Your task to perform on an android device: toggle show notifications on the lock screen Image 0: 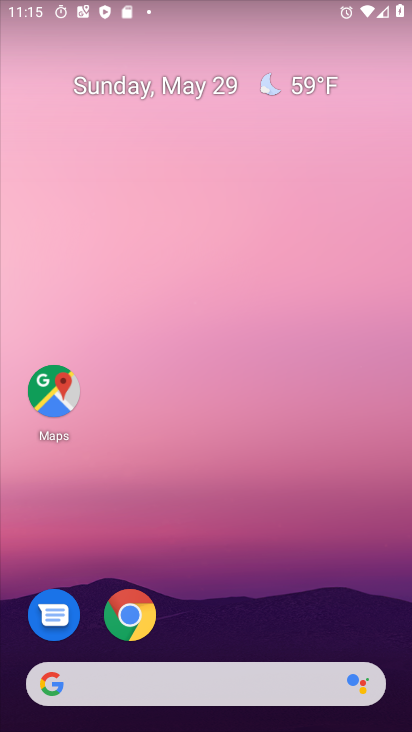
Step 0: drag from (205, 629) to (235, 82)
Your task to perform on an android device: toggle show notifications on the lock screen Image 1: 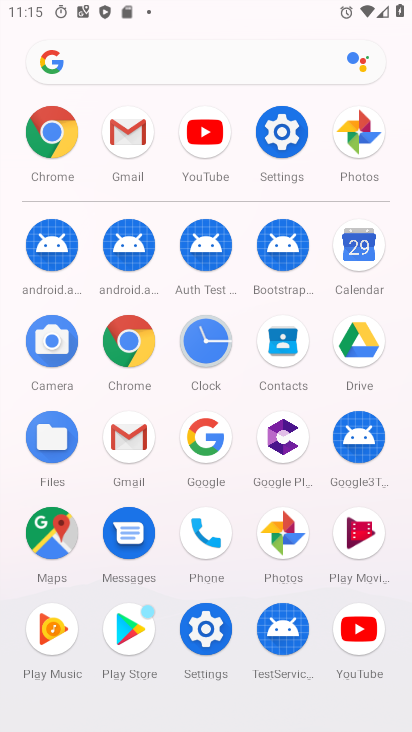
Step 1: click (277, 125)
Your task to perform on an android device: toggle show notifications on the lock screen Image 2: 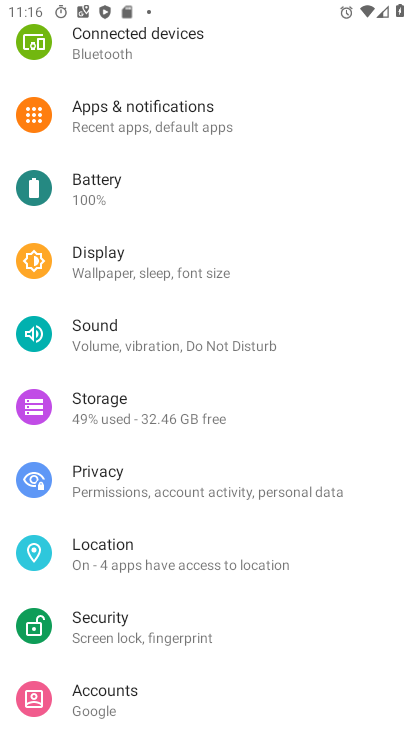
Step 2: click (164, 112)
Your task to perform on an android device: toggle show notifications on the lock screen Image 3: 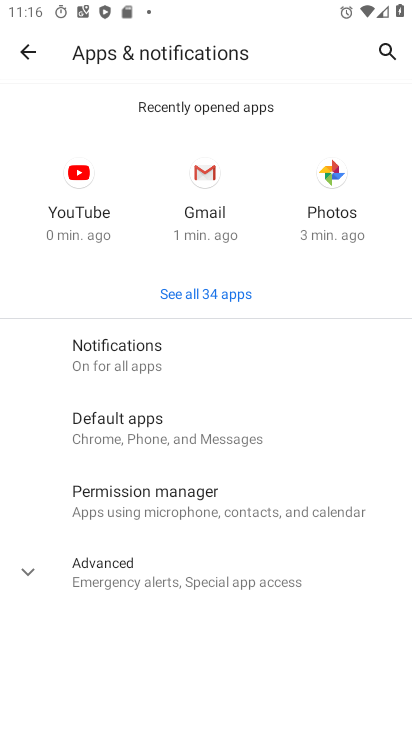
Step 3: click (158, 346)
Your task to perform on an android device: toggle show notifications on the lock screen Image 4: 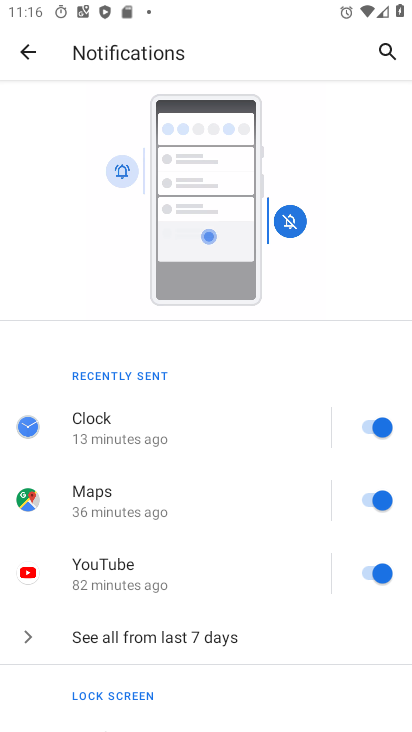
Step 4: drag from (184, 658) to (234, 360)
Your task to perform on an android device: toggle show notifications on the lock screen Image 5: 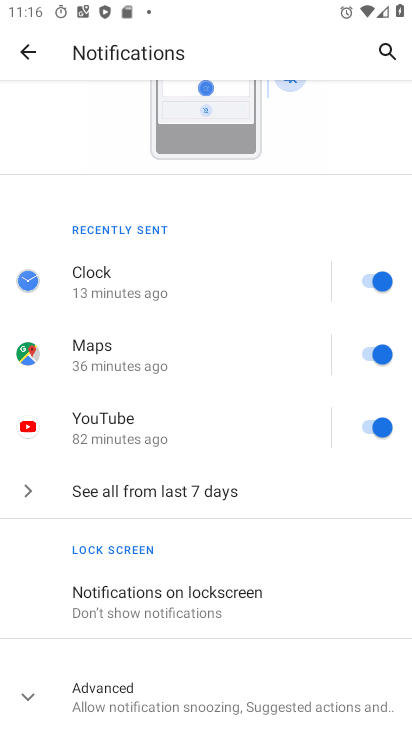
Step 5: click (124, 596)
Your task to perform on an android device: toggle show notifications on the lock screen Image 6: 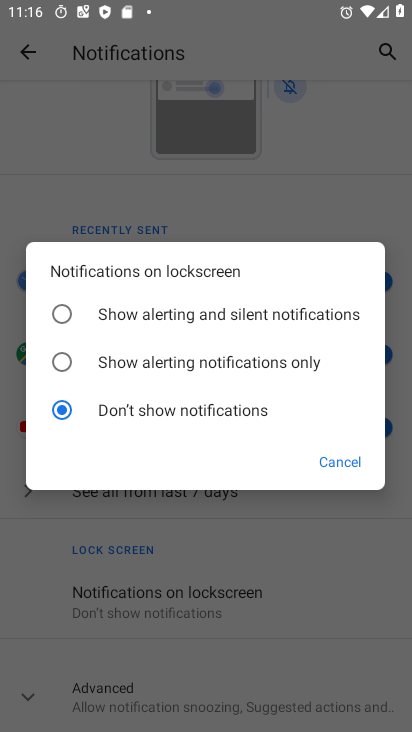
Step 6: click (67, 298)
Your task to perform on an android device: toggle show notifications on the lock screen Image 7: 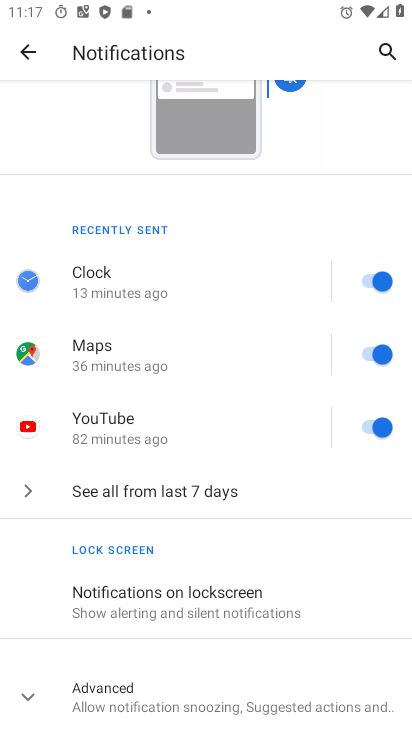
Step 7: task complete